Your task to perform on an android device: Do I have any events today? Image 0: 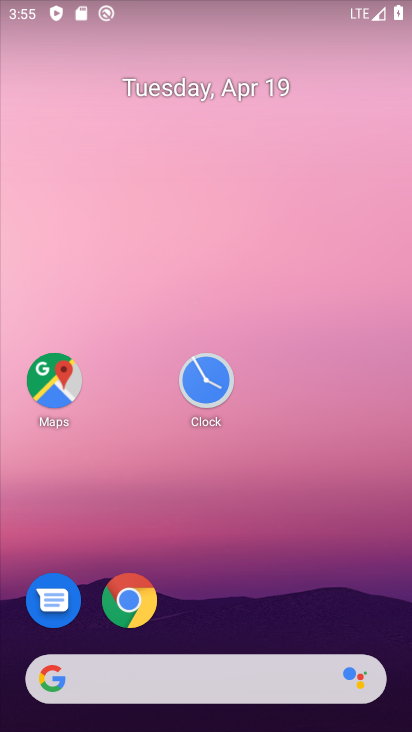
Step 0: click (213, 196)
Your task to perform on an android device: Do I have any events today? Image 1: 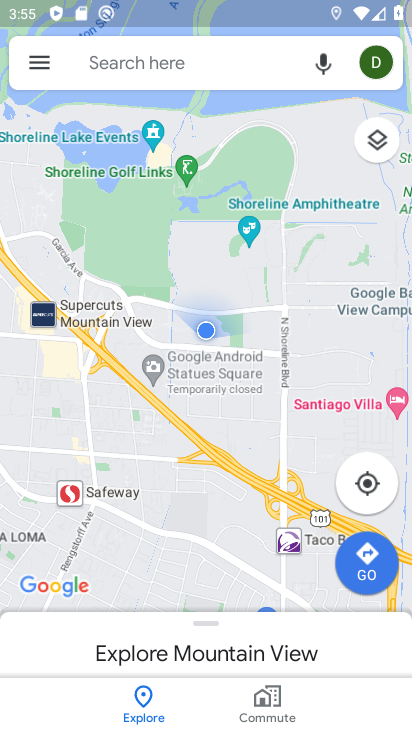
Step 1: press home button
Your task to perform on an android device: Do I have any events today? Image 2: 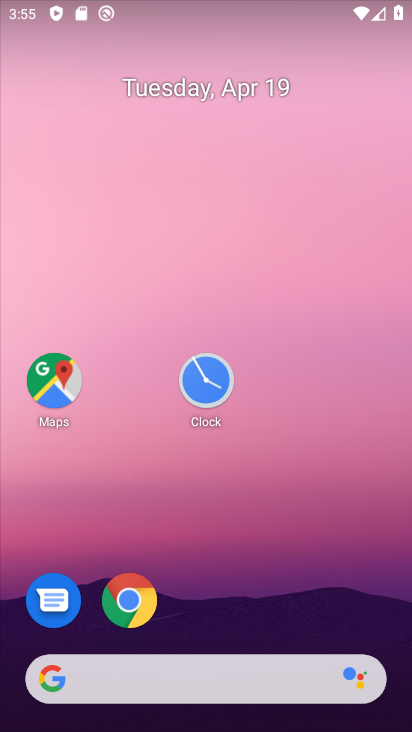
Step 2: drag from (202, 510) to (159, 126)
Your task to perform on an android device: Do I have any events today? Image 3: 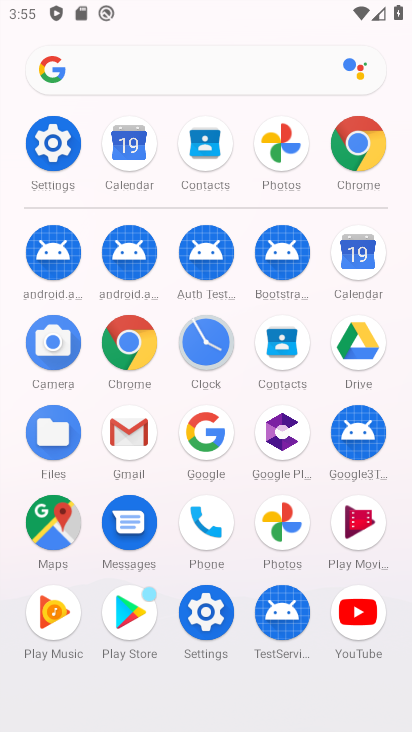
Step 3: click (355, 247)
Your task to perform on an android device: Do I have any events today? Image 4: 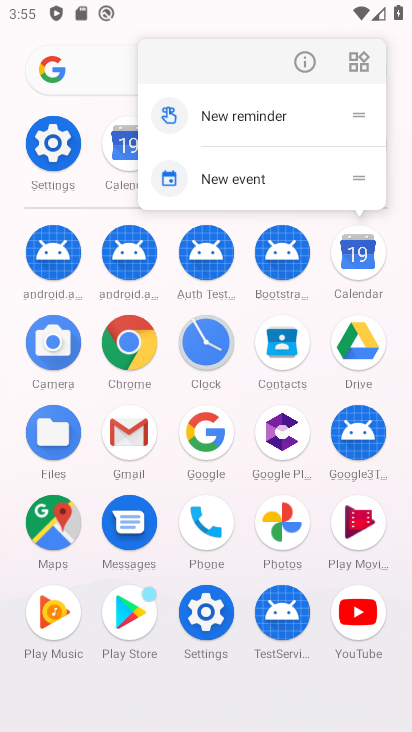
Step 4: click (355, 247)
Your task to perform on an android device: Do I have any events today? Image 5: 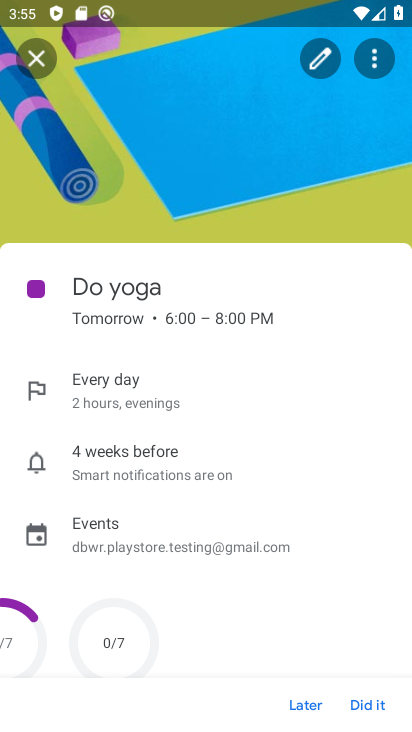
Step 5: click (35, 44)
Your task to perform on an android device: Do I have any events today? Image 6: 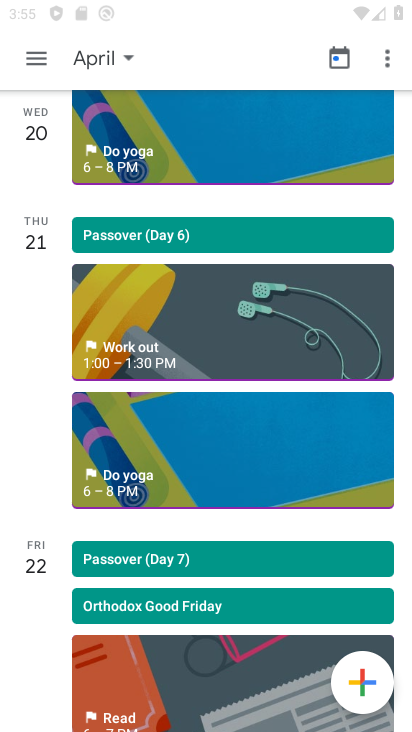
Step 6: click (35, 44)
Your task to perform on an android device: Do I have any events today? Image 7: 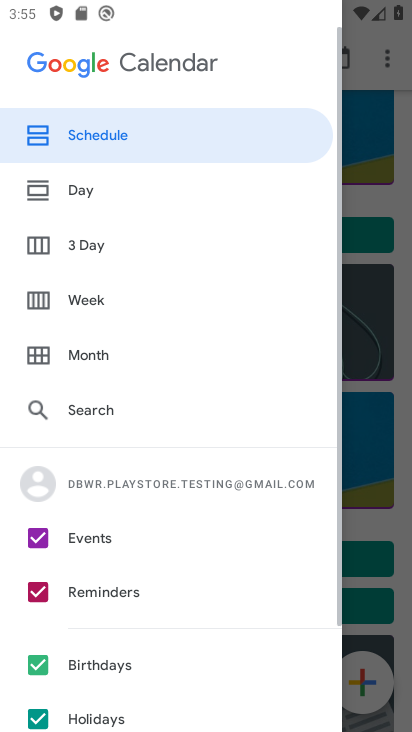
Step 7: click (374, 485)
Your task to perform on an android device: Do I have any events today? Image 8: 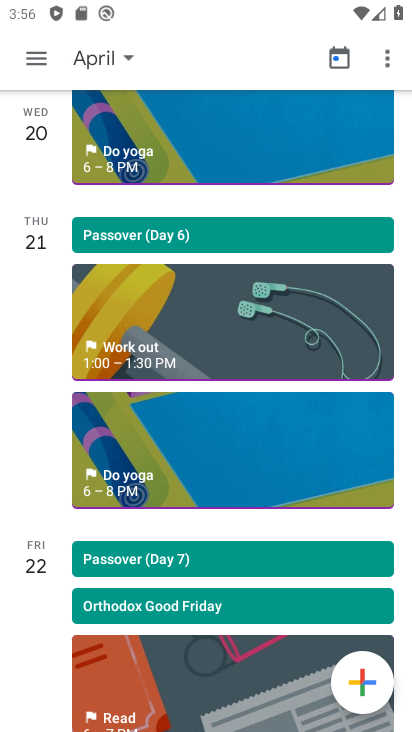
Step 8: drag from (162, 350) to (124, 232)
Your task to perform on an android device: Do I have any events today? Image 9: 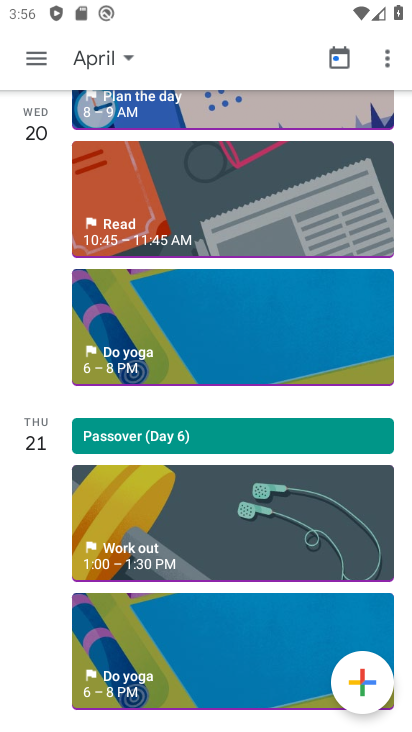
Step 9: drag from (160, 359) to (114, 196)
Your task to perform on an android device: Do I have any events today? Image 10: 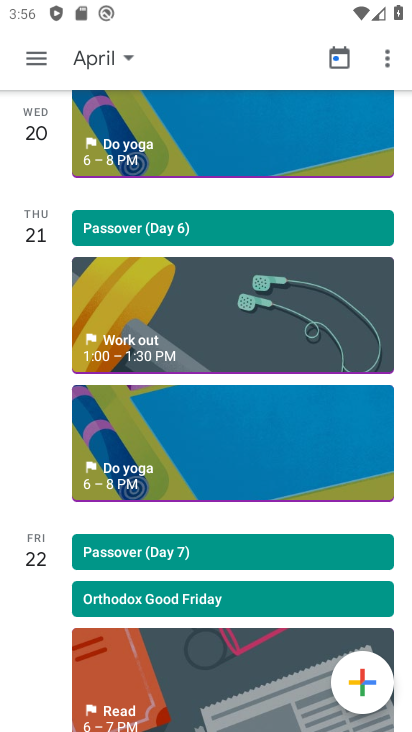
Step 10: drag from (140, 265) to (144, 527)
Your task to perform on an android device: Do I have any events today? Image 11: 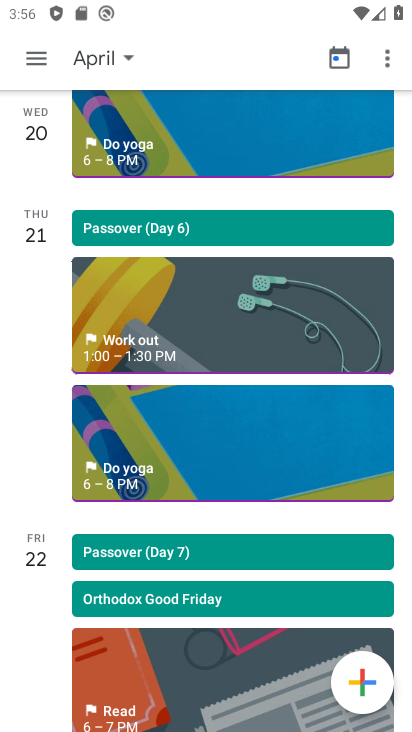
Step 11: drag from (137, 437) to (220, 578)
Your task to perform on an android device: Do I have any events today? Image 12: 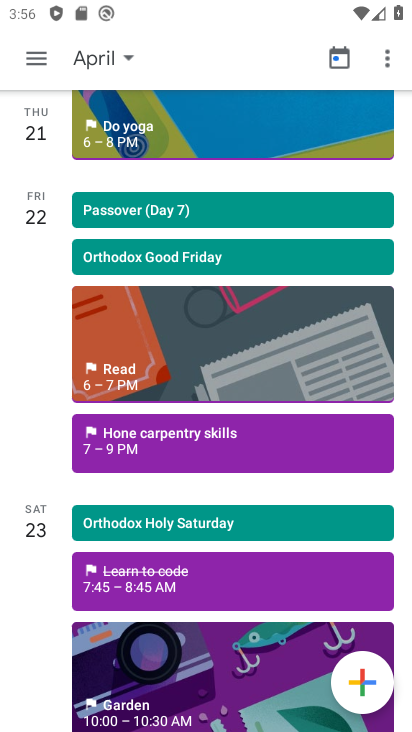
Step 12: click (256, 584)
Your task to perform on an android device: Do I have any events today? Image 13: 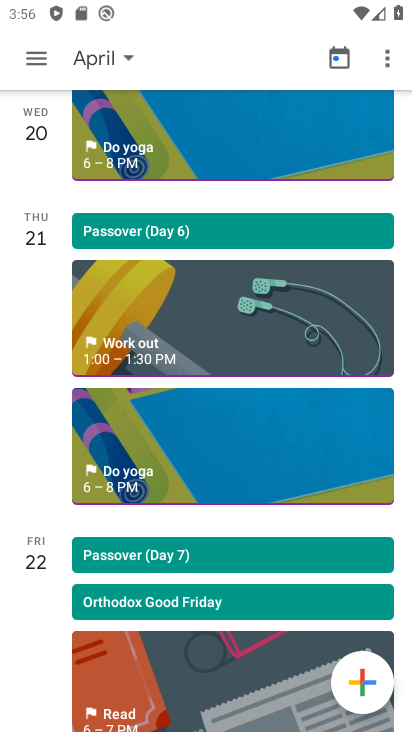
Step 13: click (245, 634)
Your task to perform on an android device: Do I have any events today? Image 14: 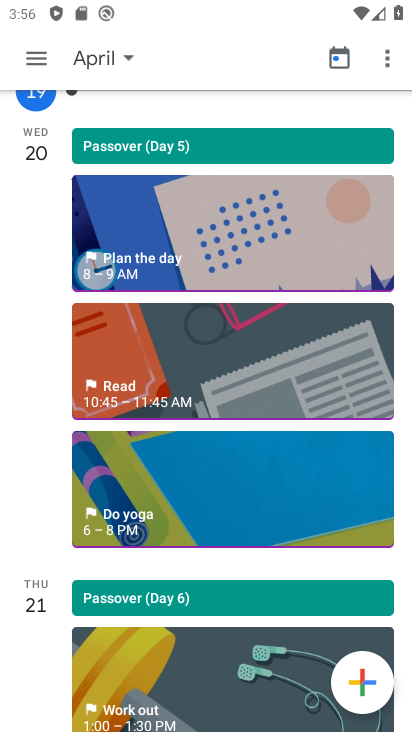
Step 14: task complete